Your task to perform on an android device: Go to display settings Image 0: 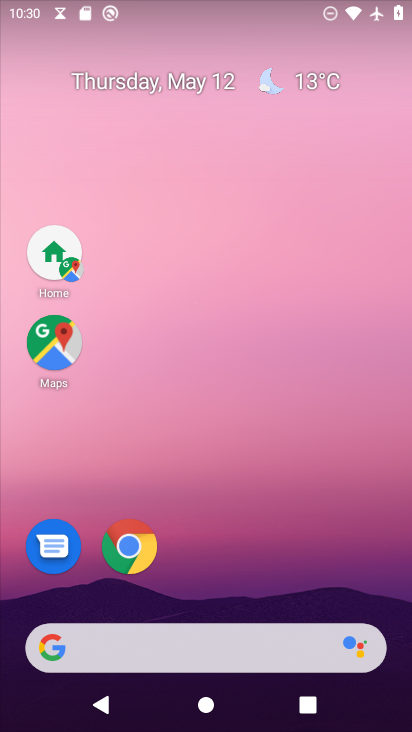
Step 0: press home button
Your task to perform on an android device: Go to display settings Image 1: 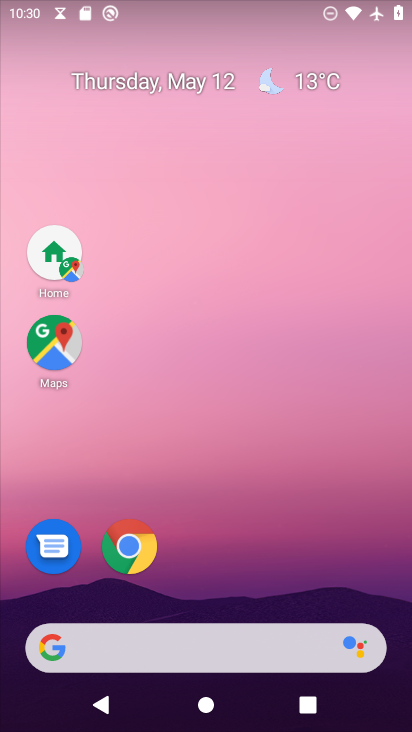
Step 1: drag from (182, 642) to (341, 75)
Your task to perform on an android device: Go to display settings Image 2: 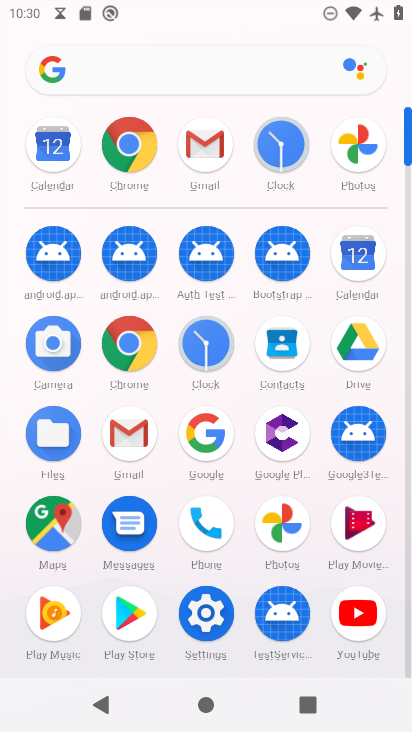
Step 2: click (208, 626)
Your task to perform on an android device: Go to display settings Image 3: 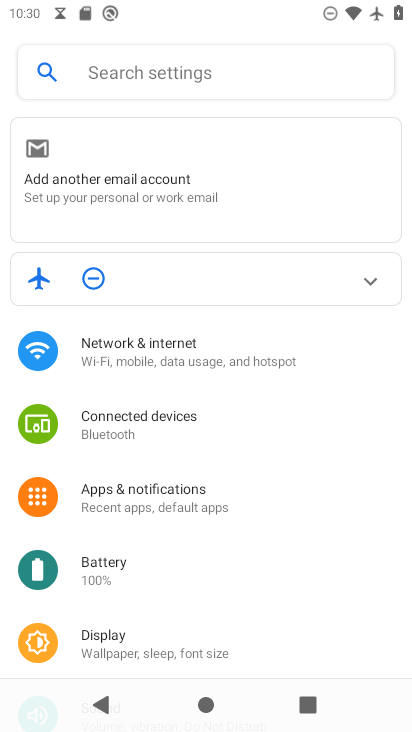
Step 3: click (115, 647)
Your task to perform on an android device: Go to display settings Image 4: 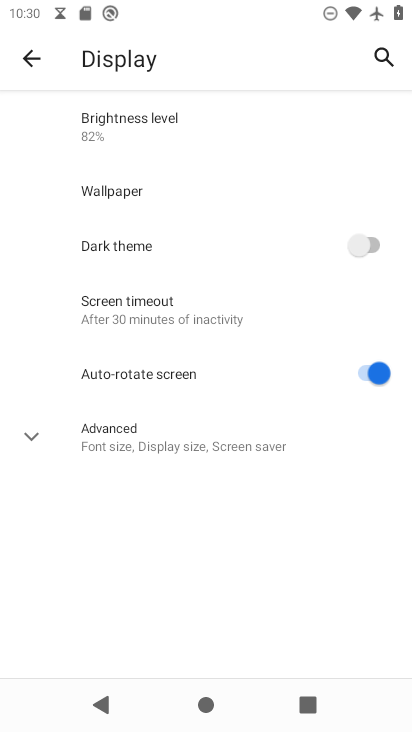
Step 4: task complete